Your task to perform on an android device: open app "NewsBreak: Local News & Alerts" (install if not already installed), go to login, and select forgot password Image 0: 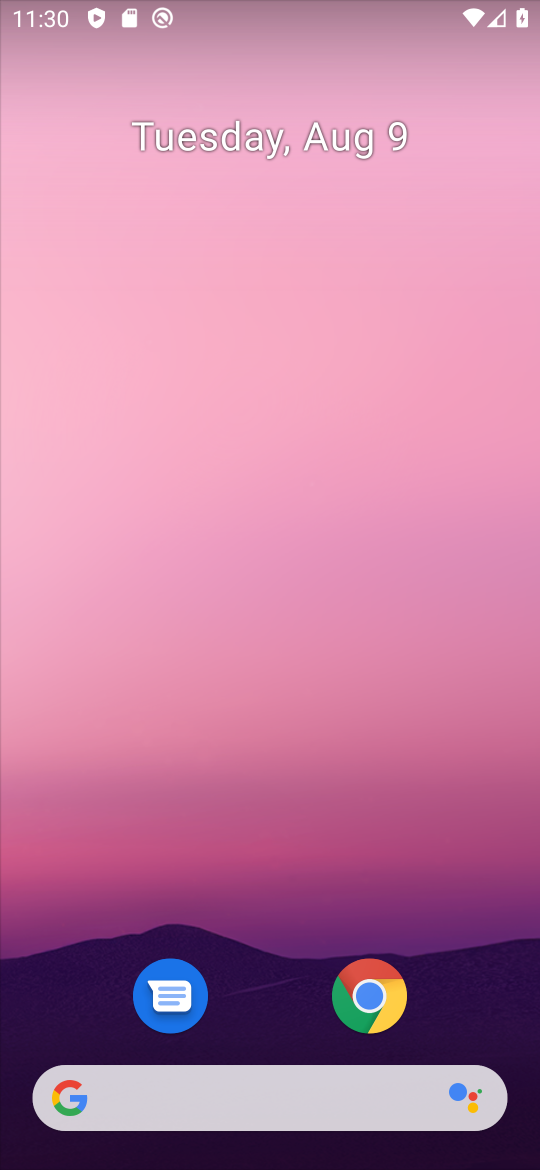
Step 0: drag from (280, 872) to (342, 118)
Your task to perform on an android device: open app "NewsBreak: Local News & Alerts" (install if not already installed), go to login, and select forgot password Image 1: 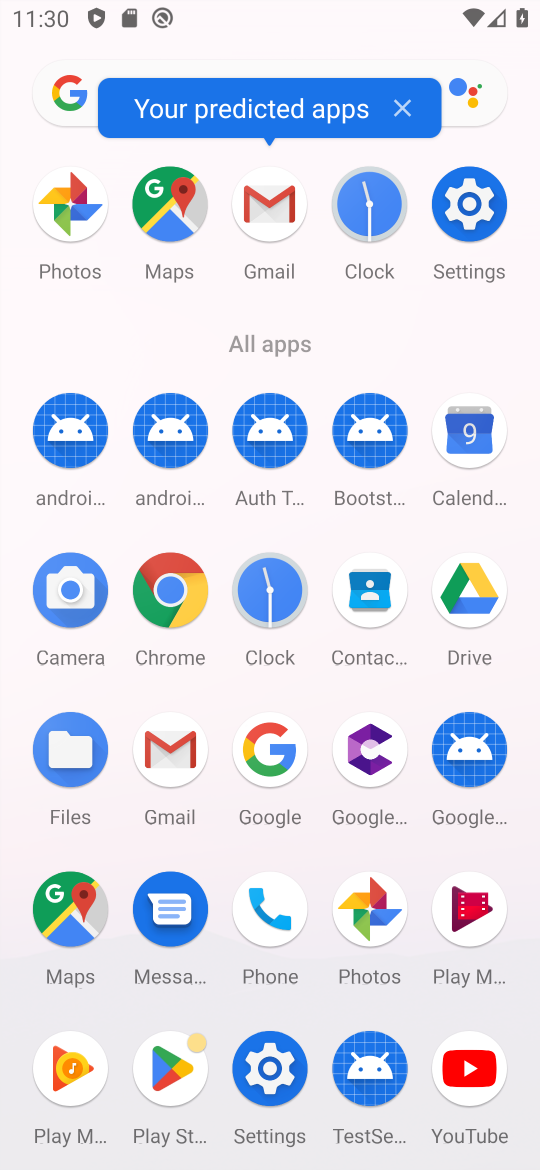
Step 1: click (177, 1064)
Your task to perform on an android device: open app "NewsBreak: Local News & Alerts" (install if not already installed), go to login, and select forgot password Image 2: 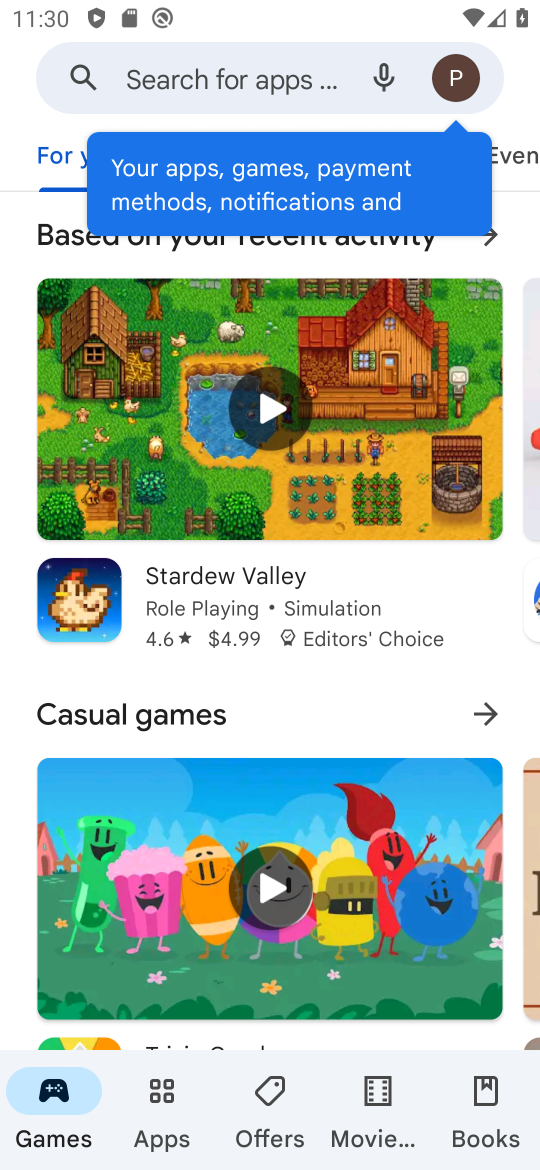
Step 2: click (277, 73)
Your task to perform on an android device: open app "NewsBreak: Local News & Alerts" (install if not already installed), go to login, and select forgot password Image 3: 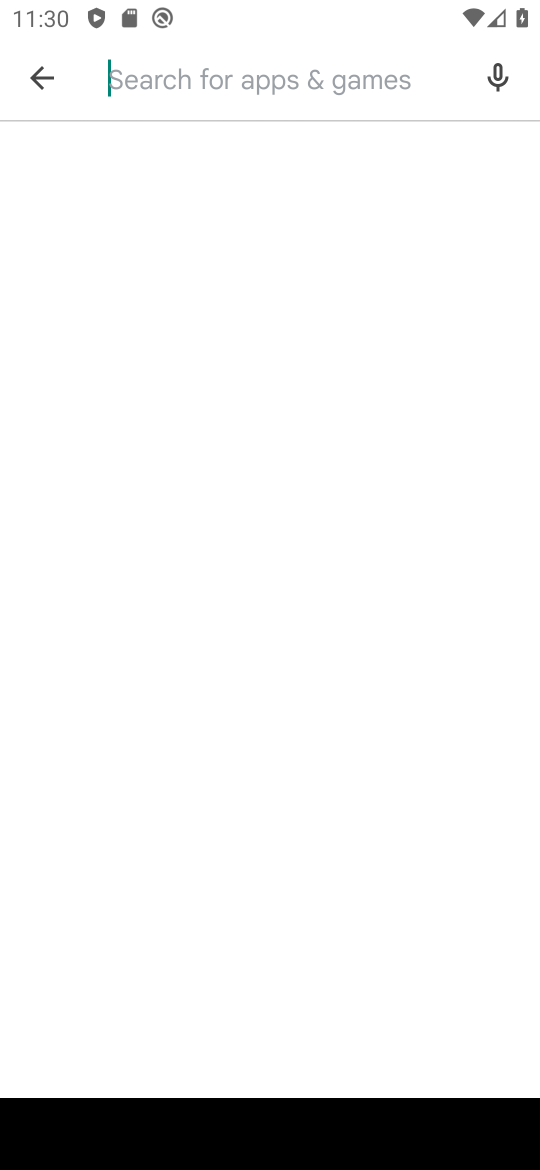
Step 3: type "NewsBreak: Local News & Alerts"
Your task to perform on an android device: open app "NewsBreak: Local News & Alerts" (install if not already installed), go to login, and select forgot password Image 4: 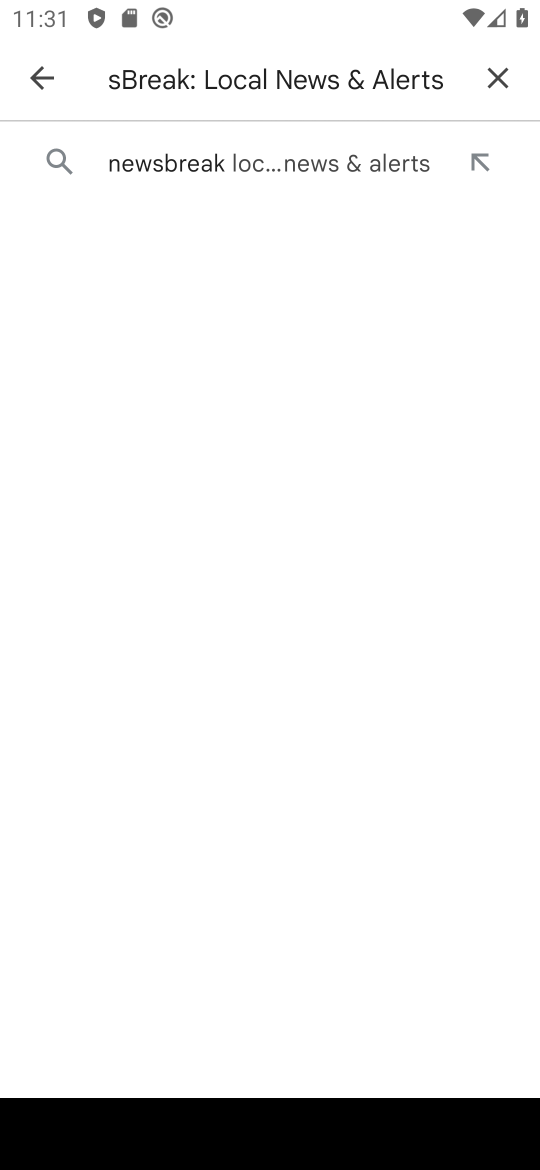
Step 4: press enter
Your task to perform on an android device: open app "NewsBreak: Local News & Alerts" (install if not already installed), go to login, and select forgot password Image 5: 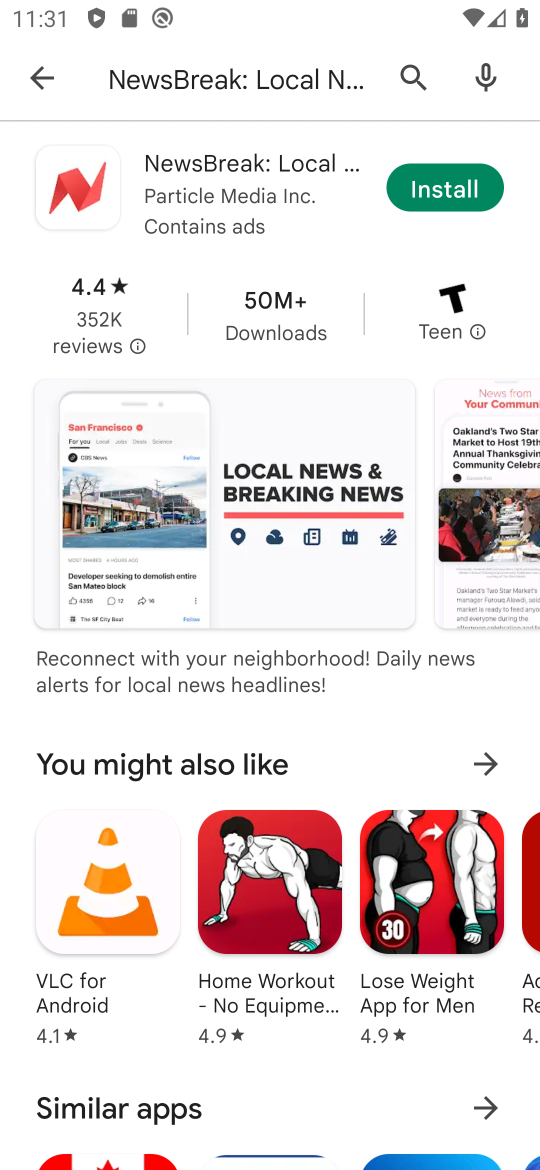
Step 5: click (448, 195)
Your task to perform on an android device: open app "NewsBreak: Local News & Alerts" (install if not already installed), go to login, and select forgot password Image 6: 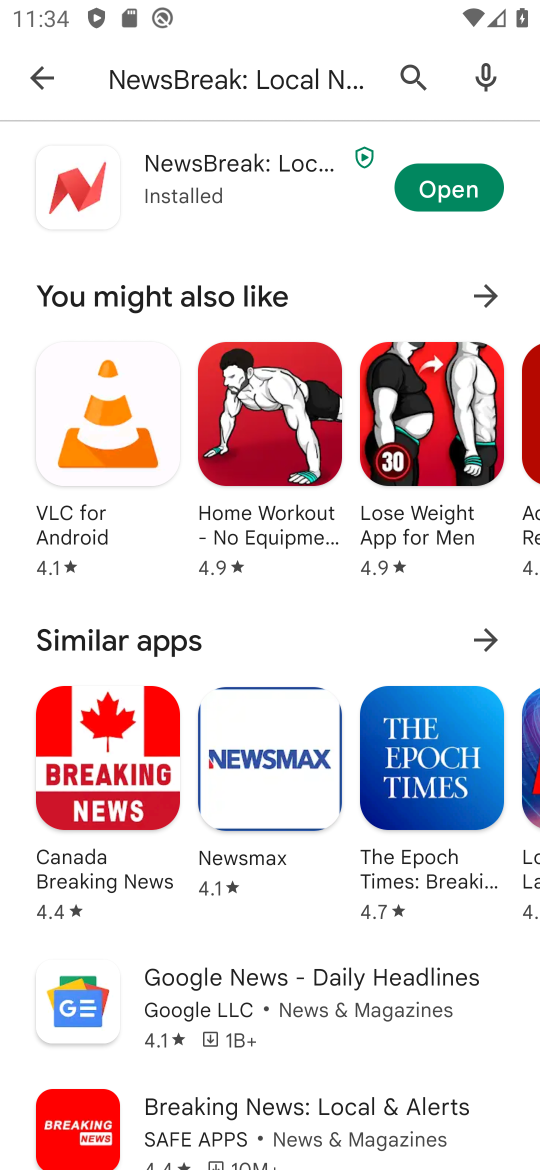
Step 6: click (439, 195)
Your task to perform on an android device: open app "NewsBreak: Local News & Alerts" (install if not already installed), go to login, and select forgot password Image 7: 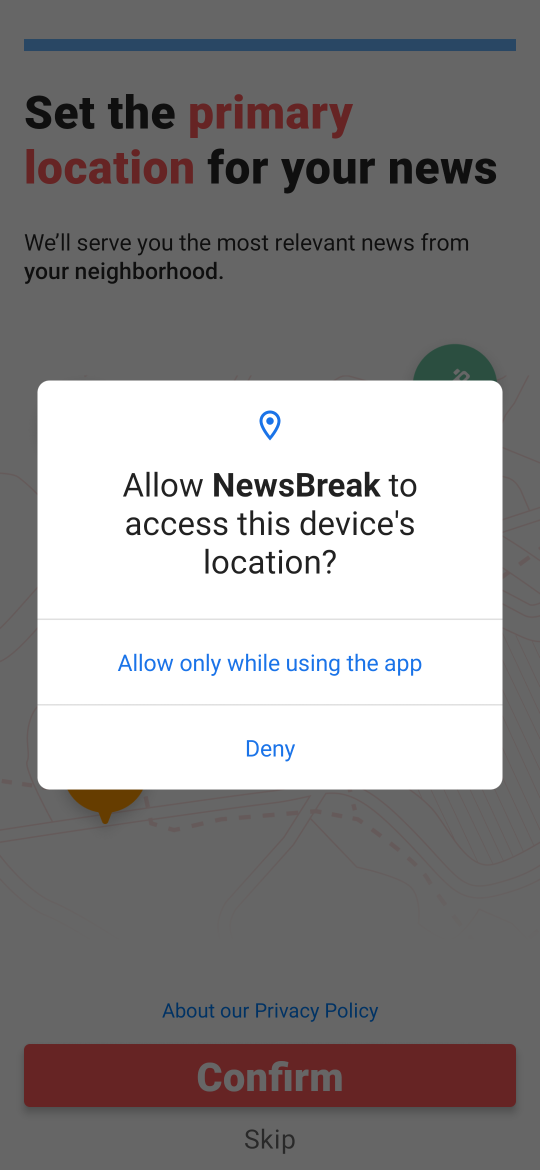
Step 7: click (284, 740)
Your task to perform on an android device: open app "NewsBreak: Local News & Alerts" (install if not already installed), go to login, and select forgot password Image 8: 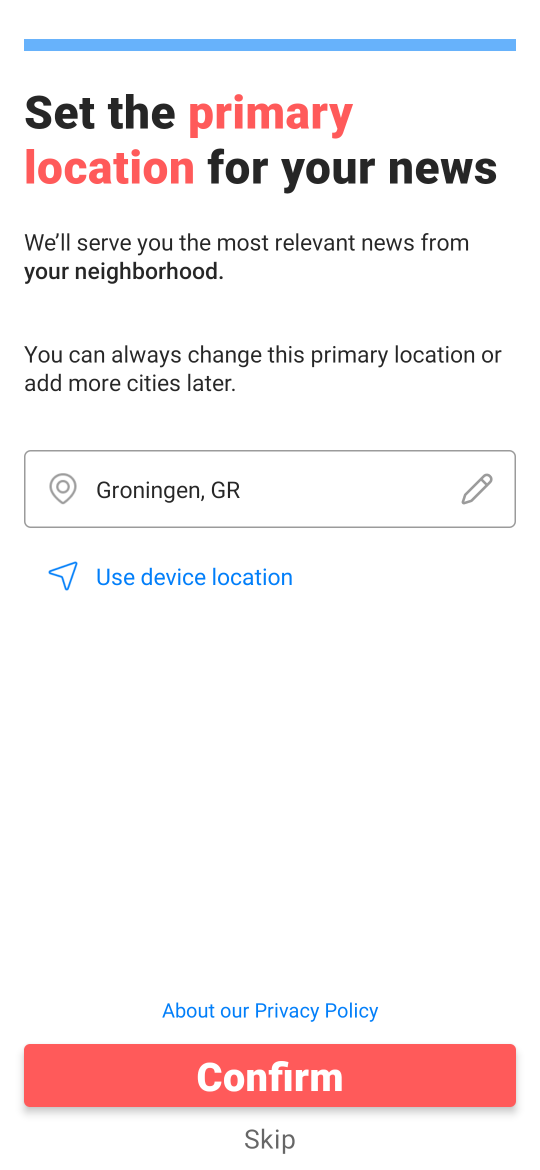
Step 8: click (277, 1152)
Your task to perform on an android device: open app "NewsBreak: Local News & Alerts" (install if not already installed), go to login, and select forgot password Image 9: 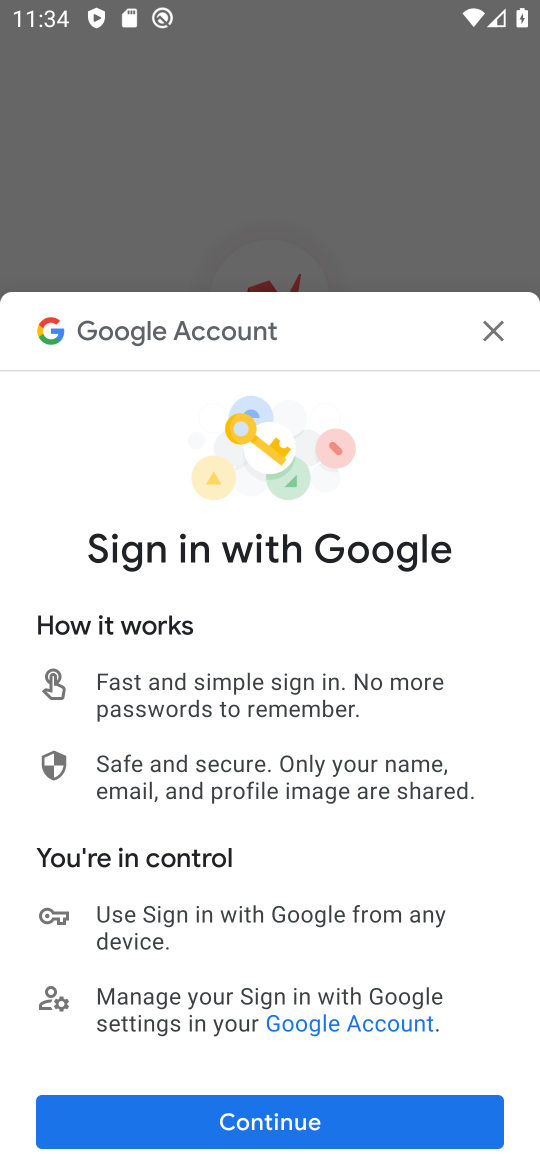
Step 9: task complete